Your task to perform on an android device: open app "Booking.com: Hotels and more" (install if not already installed) and enter user name: "misting@outlook.com" and password: "blandly" Image 0: 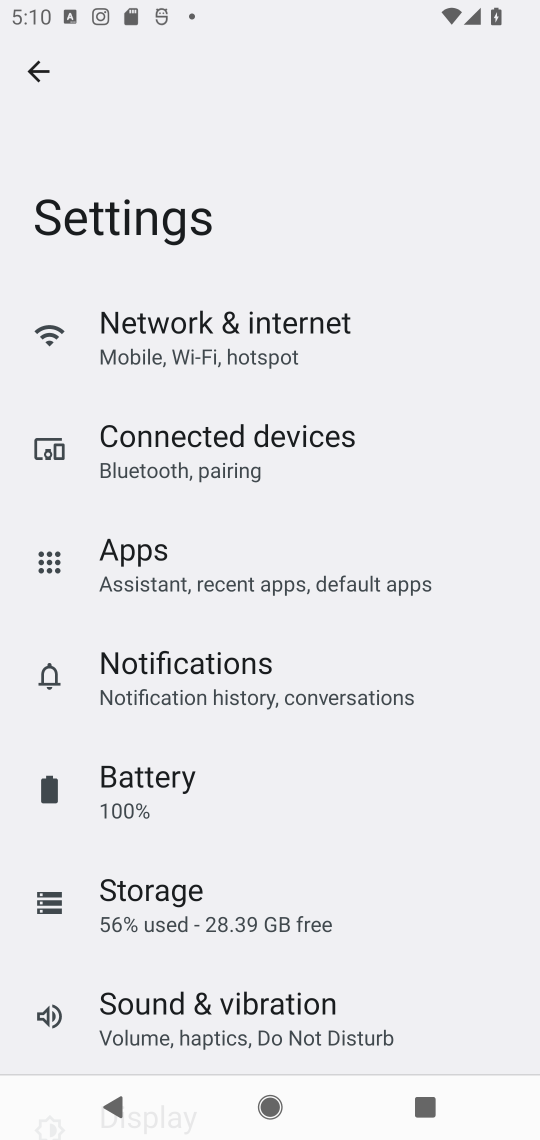
Step 0: press home button
Your task to perform on an android device: open app "Booking.com: Hotels and more" (install if not already installed) and enter user name: "misting@outlook.com" and password: "blandly" Image 1: 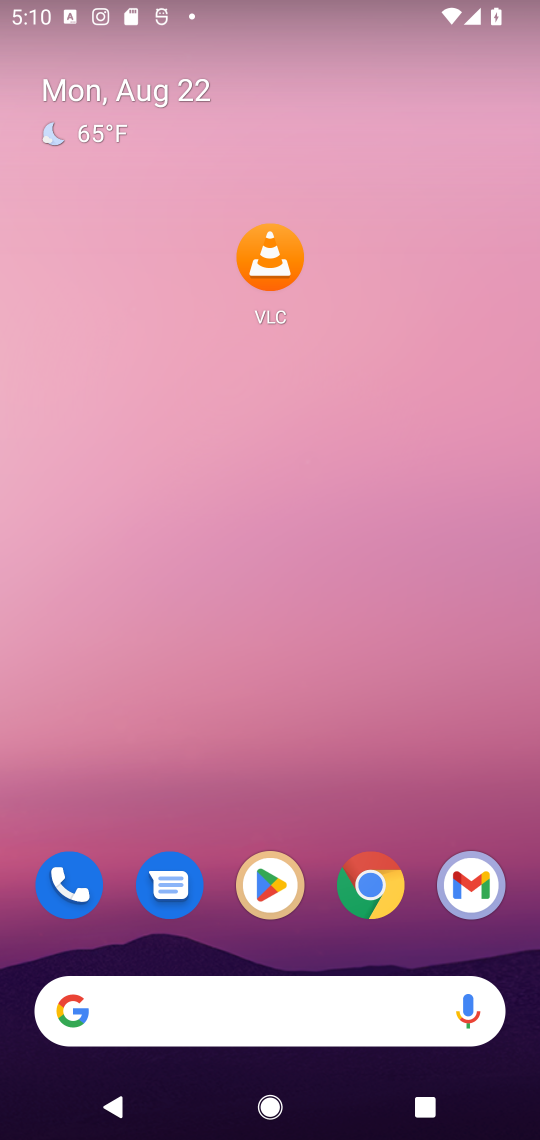
Step 1: click (267, 896)
Your task to perform on an android device: open app "Booking.com: Hotels and more" (install if not already installed) and enter user name: "misting@outlook.com" and password: "blandly" Image 2: 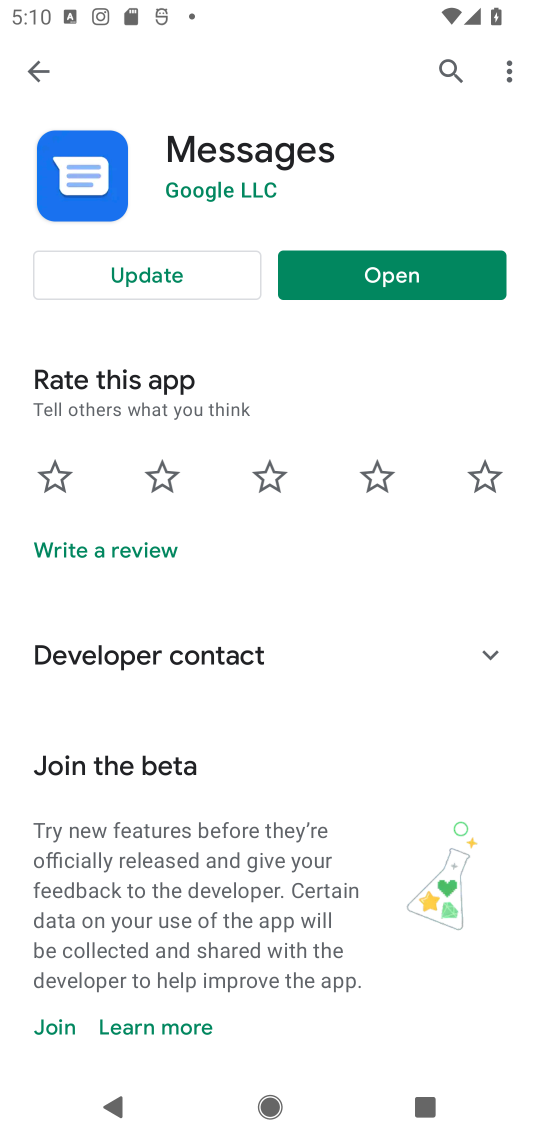
Step 2: click (428, 63)
Your task to perform on an android device: open app "Booking.com: Hotels and more" (install if not already installed) and enter user name: "misting@outlook.com" and password: "blandly" Image 3: 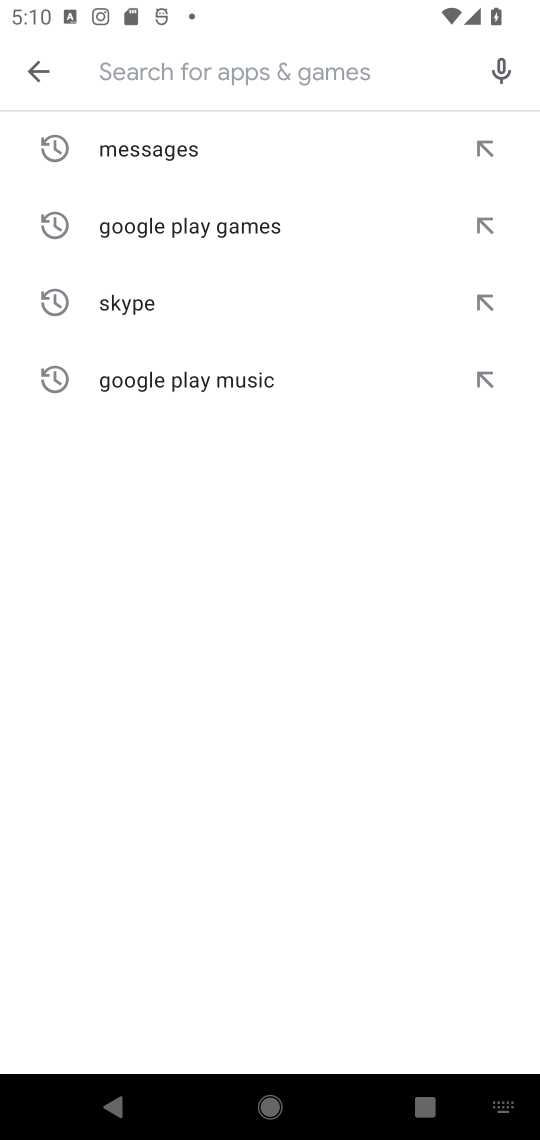
Step 3: type "Booking.com: Hotels and more"
Your task to perform on an android device: open app "Booking.com: Hotels and more" (install if not already installed) and enter user name: "misting@outlook.com" and password: "blandly" Image 4: 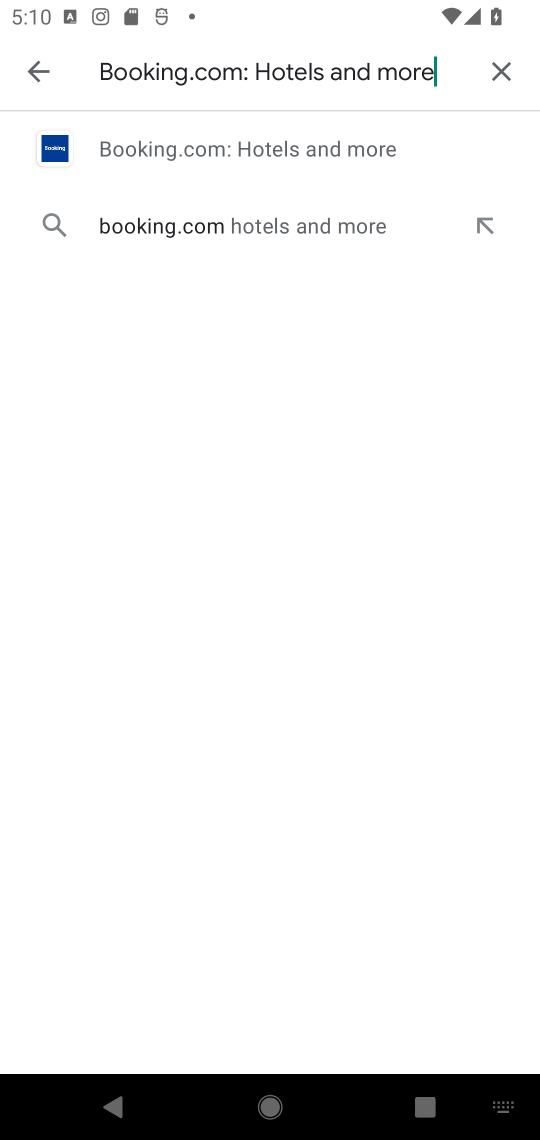
Step 4: click (127, 150)
Your task to perform on an android device: open app "Booking.com: Hotels and more" (install if not already installed) and enter user name: "misting@outlook.com" and password: "blandly" Image 5: 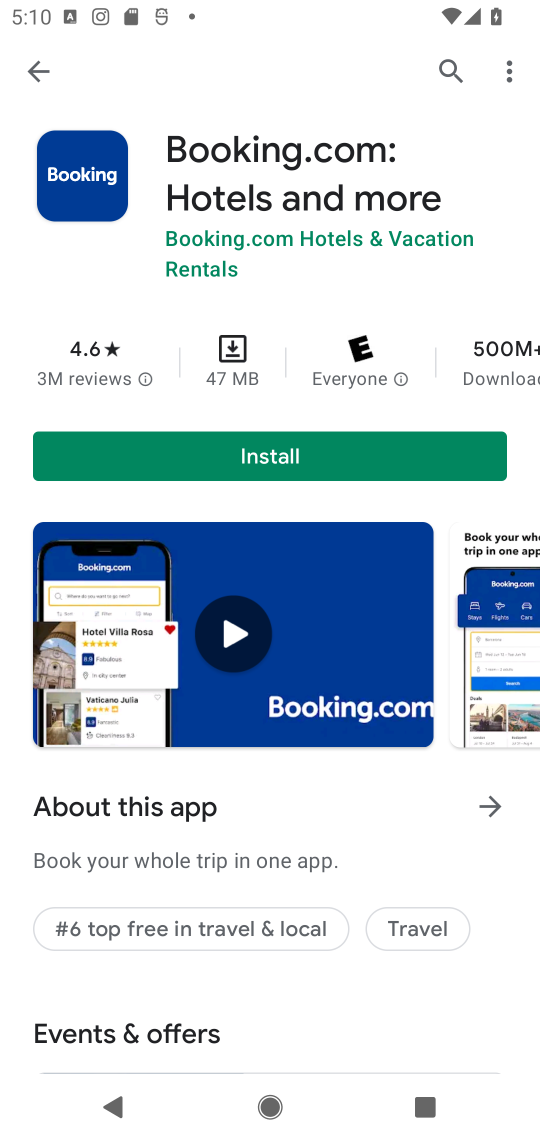
Step 5: click (253, 458)
Your task to perform on an android device: open app "Booking.com: Hotels and more" (install if not already installed) and enter user name: "misting@outlook.com" and password: "blandly" Image 6: 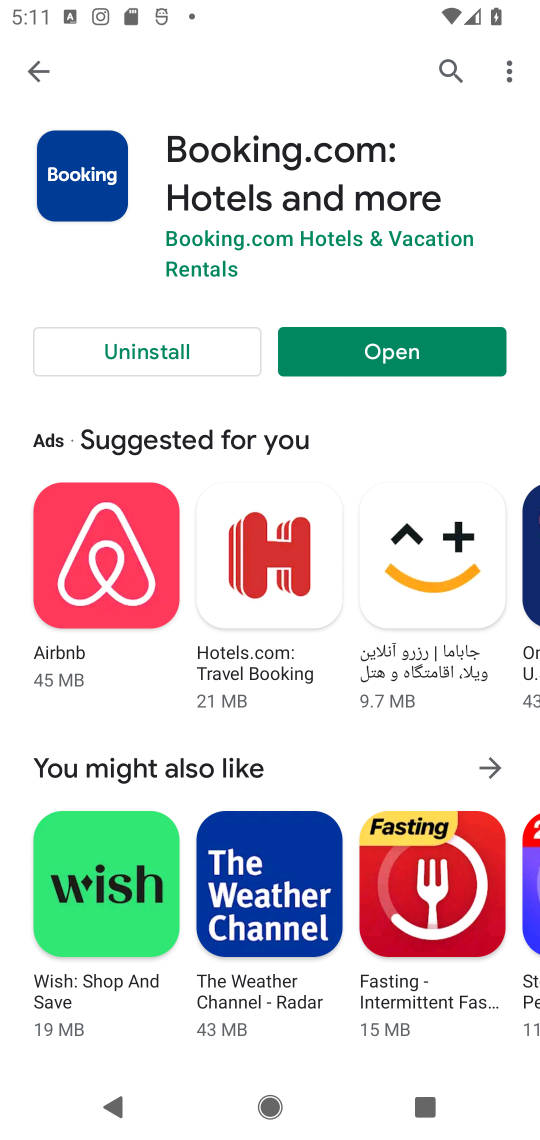
Step 6: click (407, 352)
Your task to perform on an android device: open app "Booking.com: Hotels and more" (install if not already installed) and enter user name: "misting@outlook.com" and password: "blandly" Image 7: 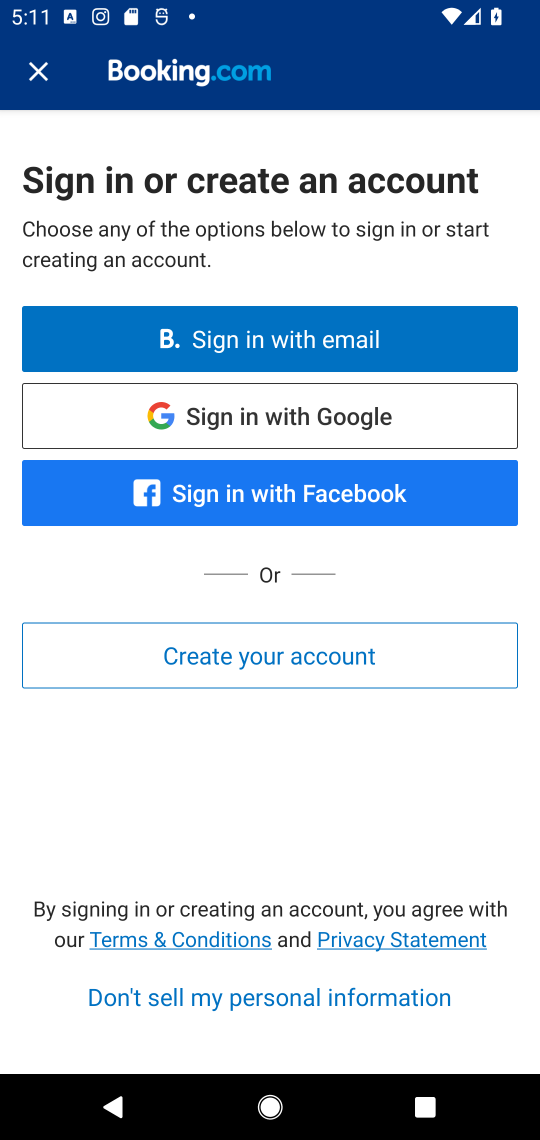
Step 7: click (287, 345)
Your task to perform on an android device: open app "Booking.com: Hotels and more" (install if not already installed) and enter user name: "misting@outlook.com" and password: "blandly" Image 8: 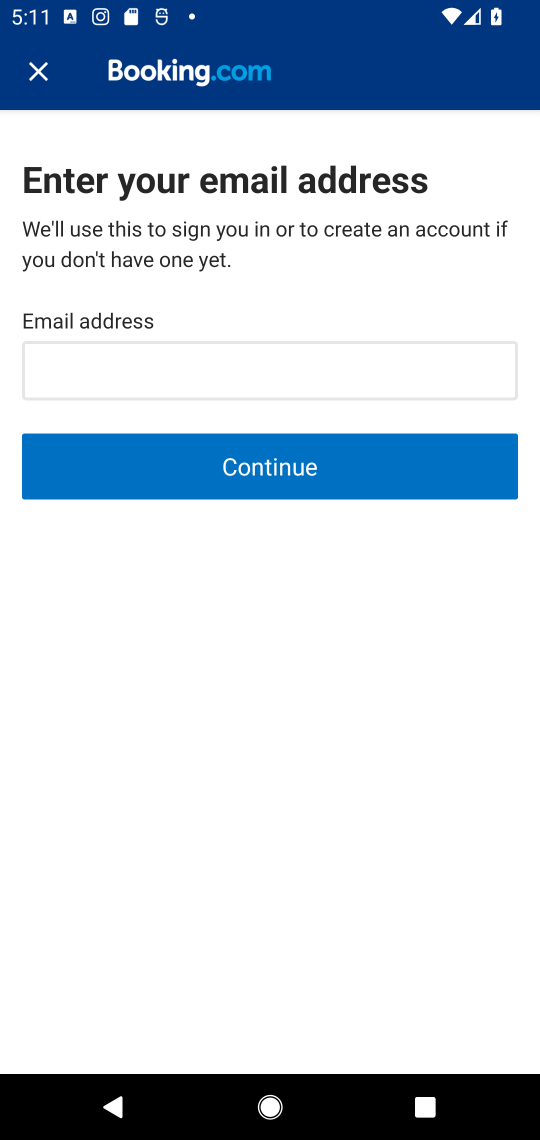
Step 8: click (216, 360)
Your task to perform on an android device: open app "Booking.com: Hotels and more" (install if not already installed) and enter user name: "misting@outlook.com" and password: "blandly" Image 9: 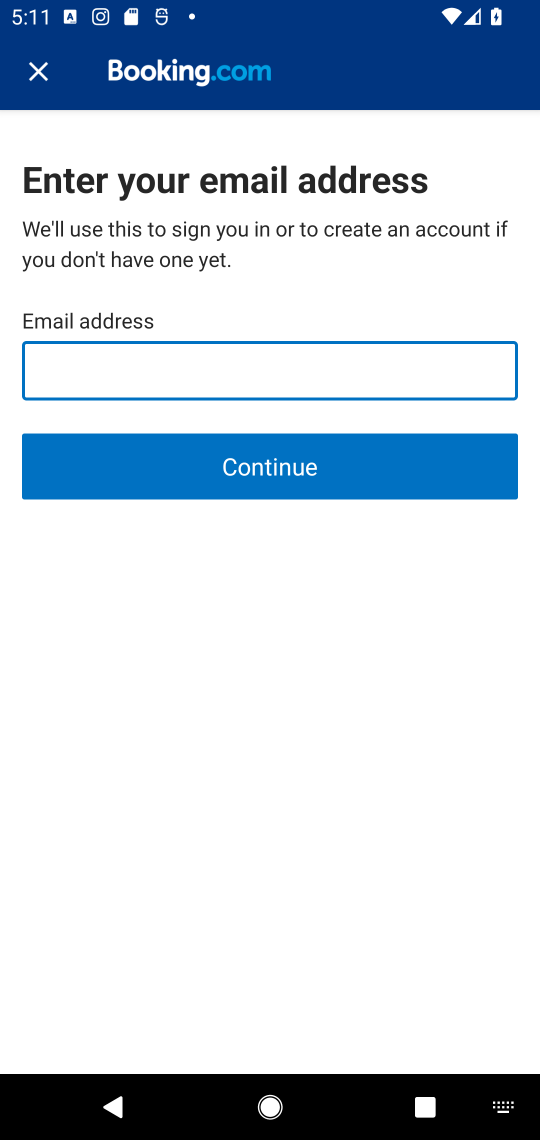
Step 9: type "misting@outlook.com"
Your task to perform on an android device: open app "Booking.com: Hotels and more" (install if not already installed) and enter user name: "misting@outlook.com" and password: "blandly" Image 10: 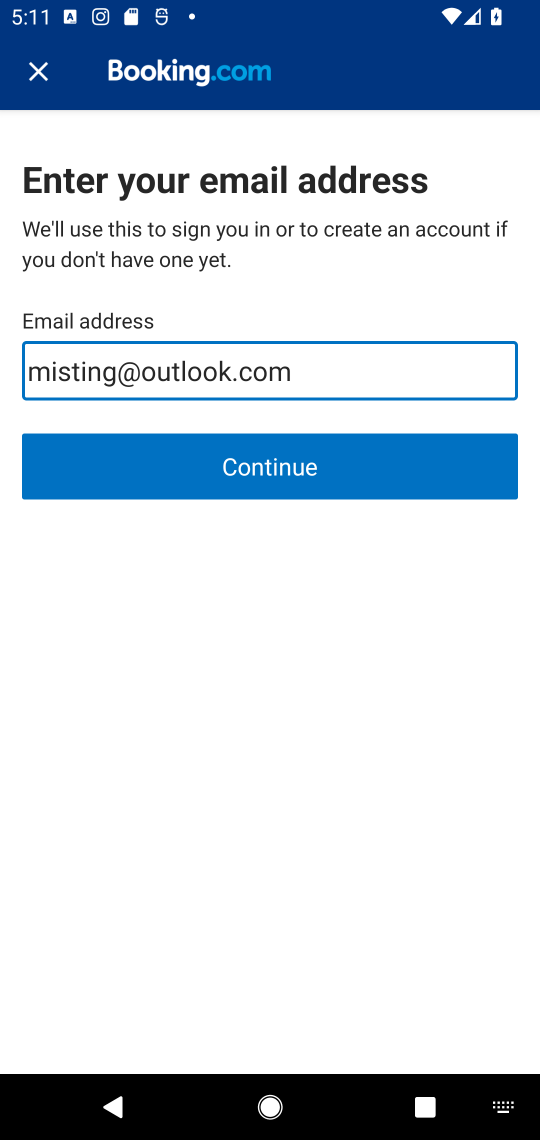
Step 10: click (255, 479)
Your task to perform on an android device: open app "Booking.com: Hotels and more" (install if not already installed) and enter user name: "misting@outlook.com" and password: "blandly" Image 11: 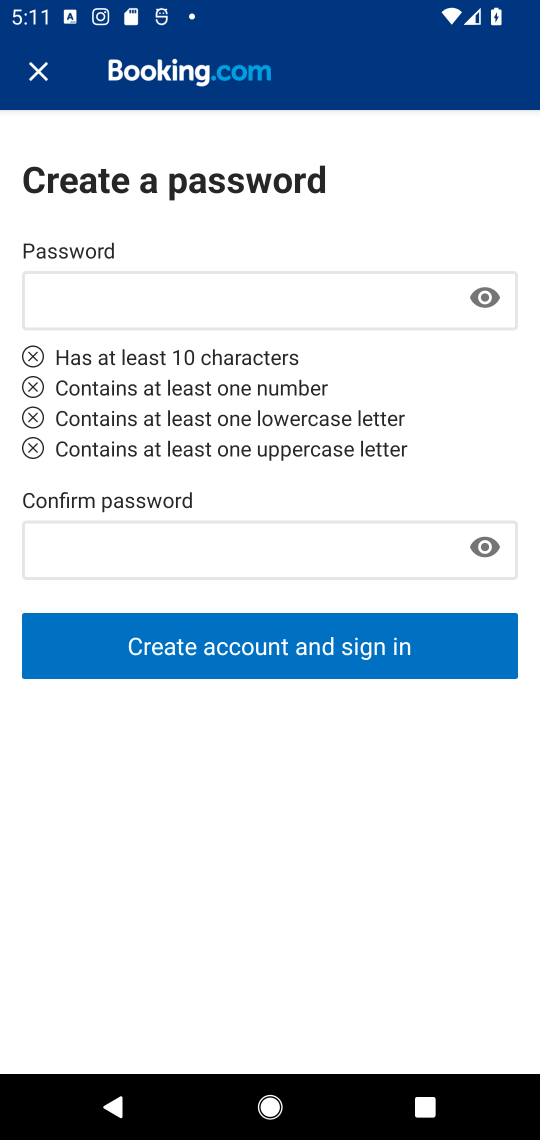
Step 11: click (130, 303)
Your task to perform on an android device: open app "Booking.com: Hotels and more" (install if not already installed) and enter user name: "misting@outlook.com" and password: "blandly" Image 12: 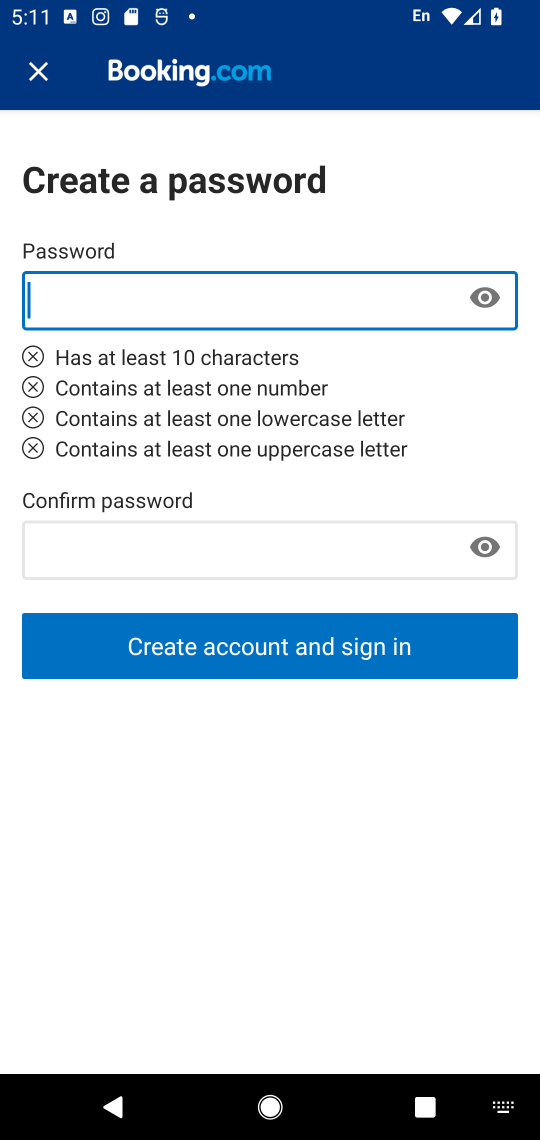
Step 12: type "blandly"
Your task to perform on an android device: open app "Booking.com: Hotels and more" (install if not already installed) and enter user name: "misting@outlook.com" and password: "blandly" Image 13: 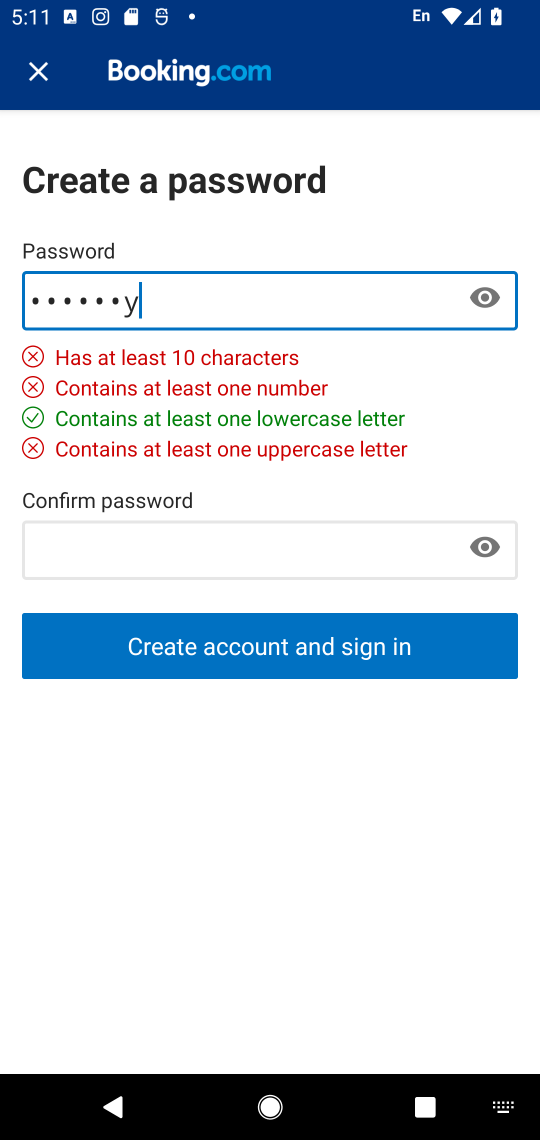
Step 13: click (276, 538)
Your task to perform on an android device: open app "Booking.com: Hotels and more" (install if not already installed) and enter user name: "misting@outlook.com" and password: "blandly" Image 14: 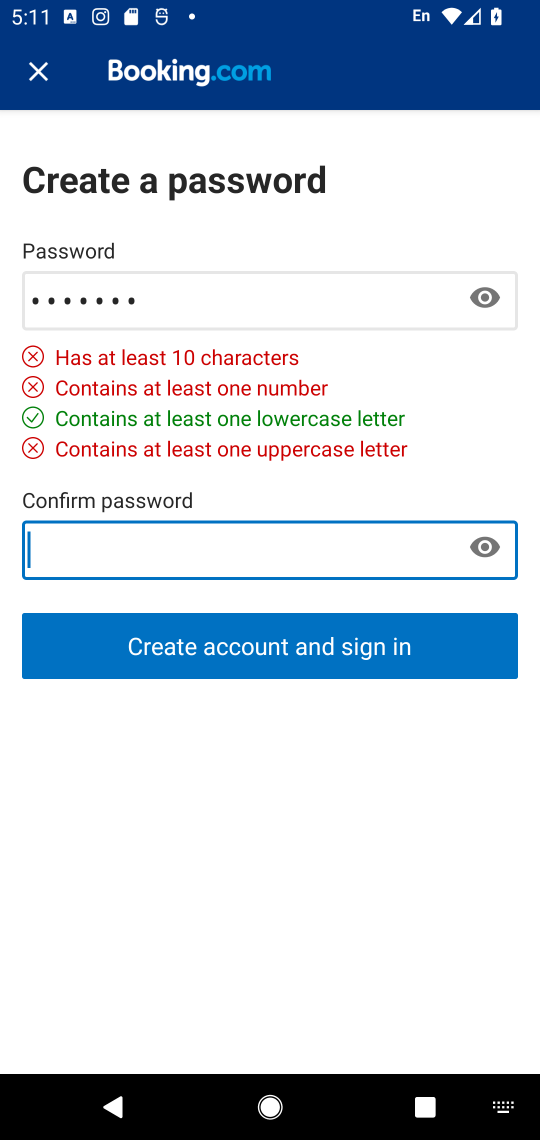
Step 14: type "blandly"
Your task to perform on an android device: open app "Booking.com: Hotels and more" (install if not already installed) and enter user name: "misting@outlook.com" and password: "blandly" Image 15: 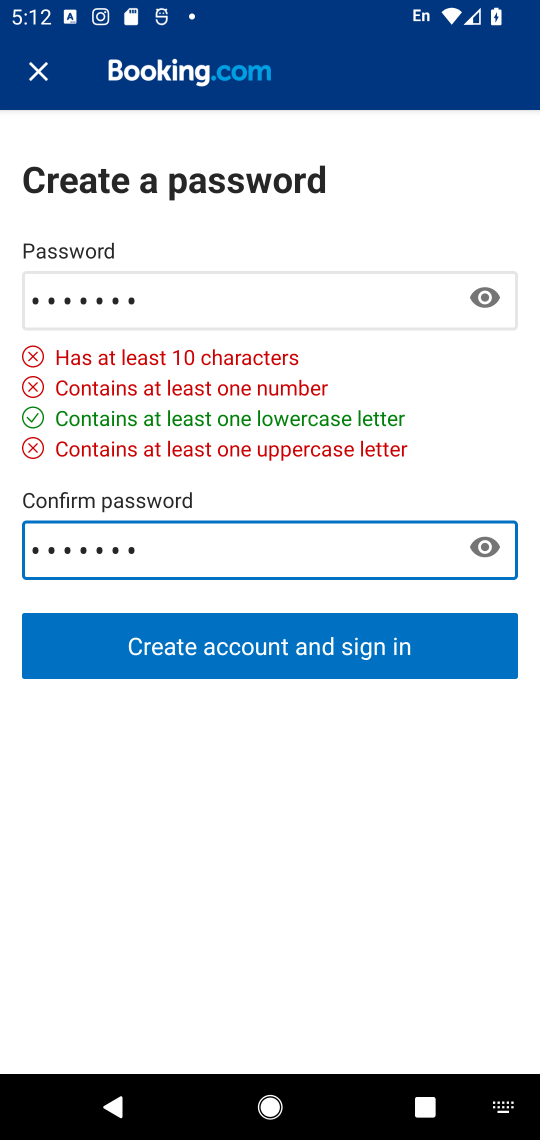
Step 15: click (258, 652)
Your task to perform on an android device: open app "Booking.com: Hotels and more" (install if not already installed) and enter user name: "misting@outlook.com" and password: "blandly" Image 16: 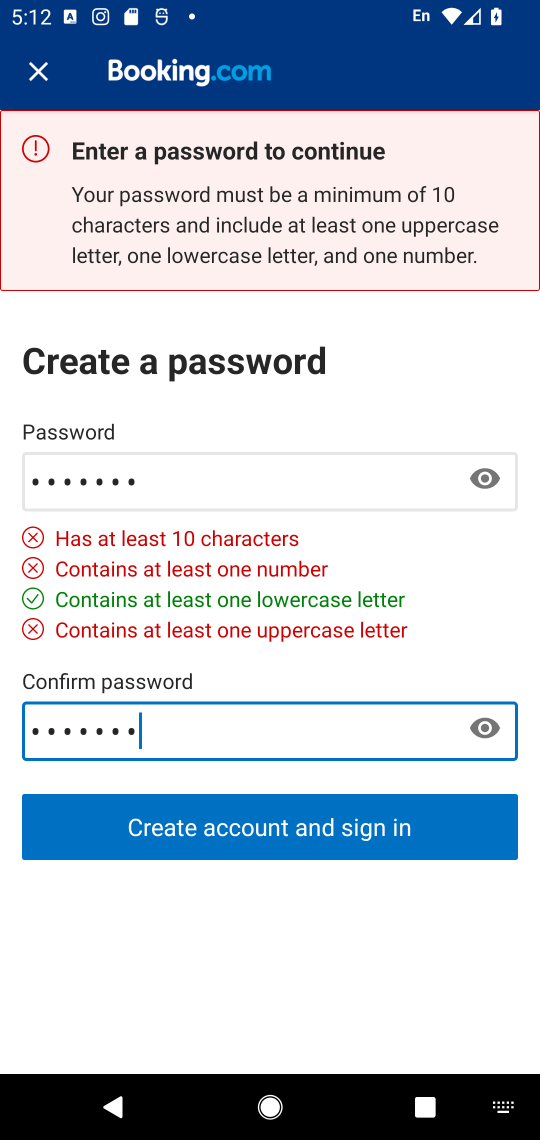
Step 16: click (290, 841)
Your task to perform on an android device: open app "Booking.com: Hotels and more" (install if not already installed) and enter user name: "misting@outlook.com" and password: "blandly" Image 17: 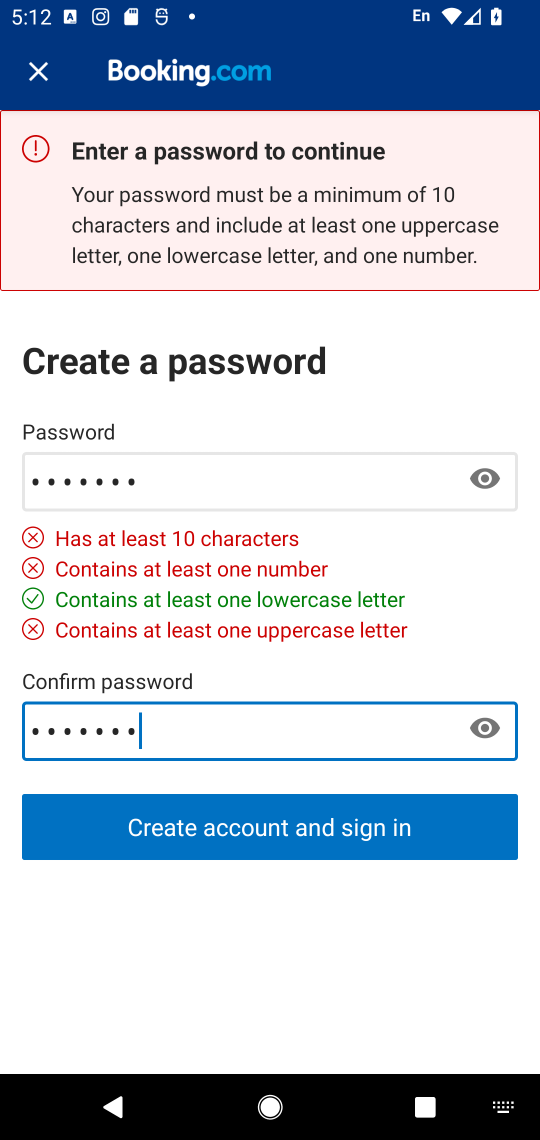
Step 17: task complete